Your task to perform on an android device: install app "Google Keep" Image 0: 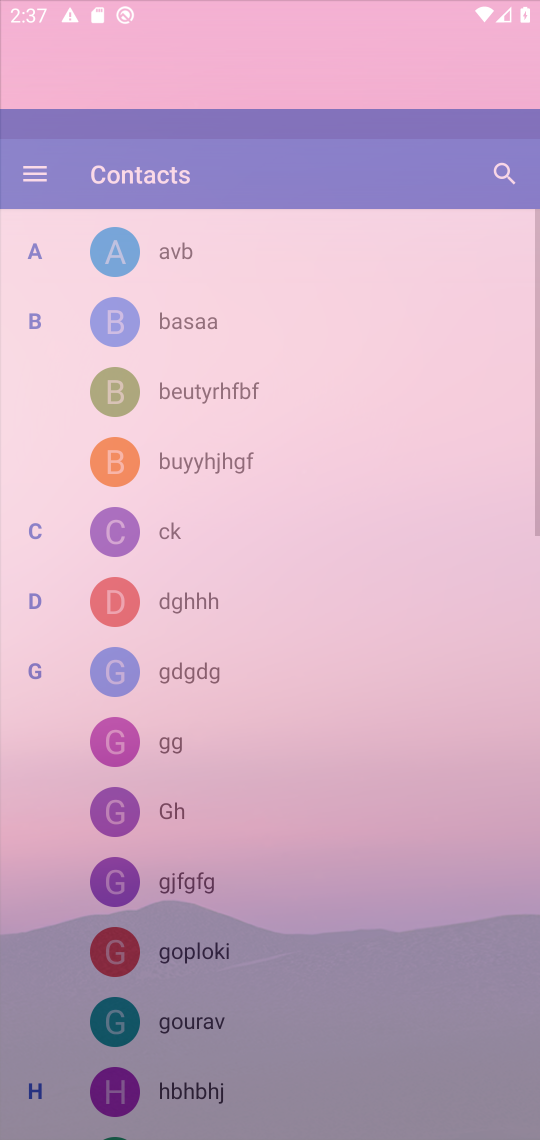
Step 0: press home button
Your task to perform on an android device: install app "Google Keep" Image 1: 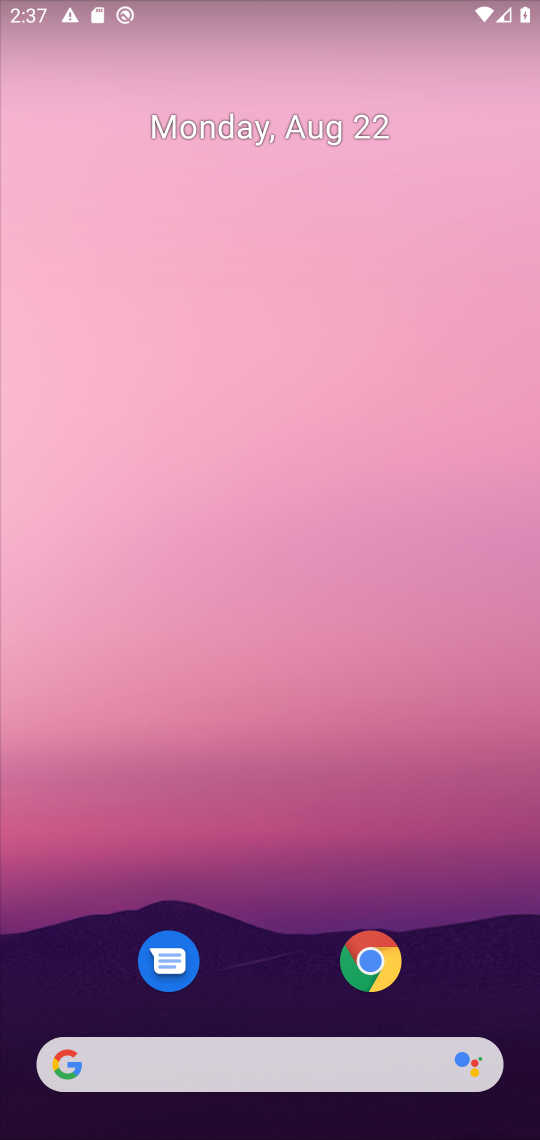
Step 1: drag from (468, 995) to (460, 54)
Your task to perform on an android device: install app "Google Keep" Image 2: 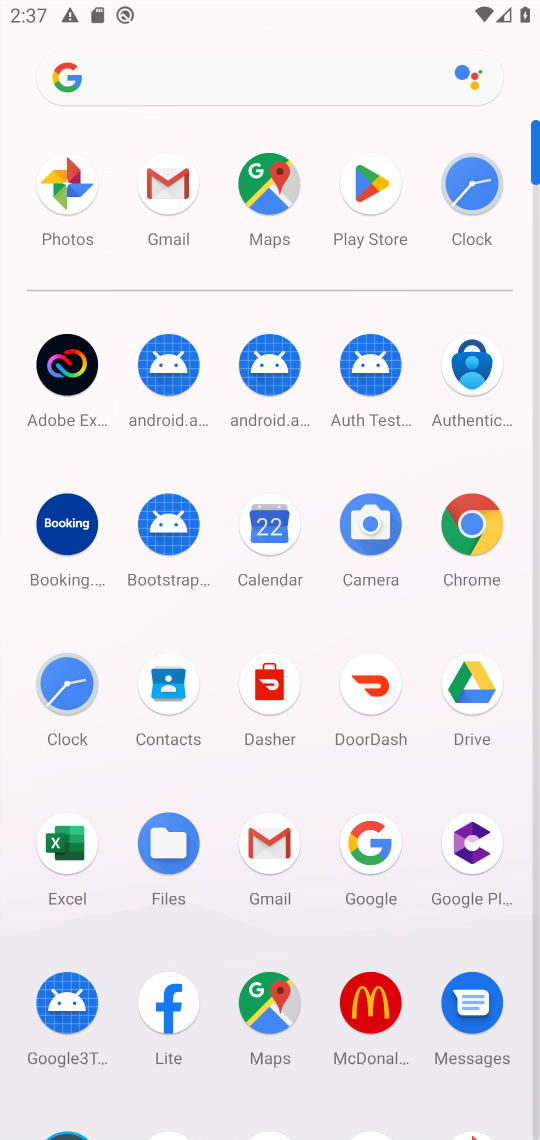
Step 2: click (374, 186)
Your task to perform on an android device: install app "Google Keep" Image 3: 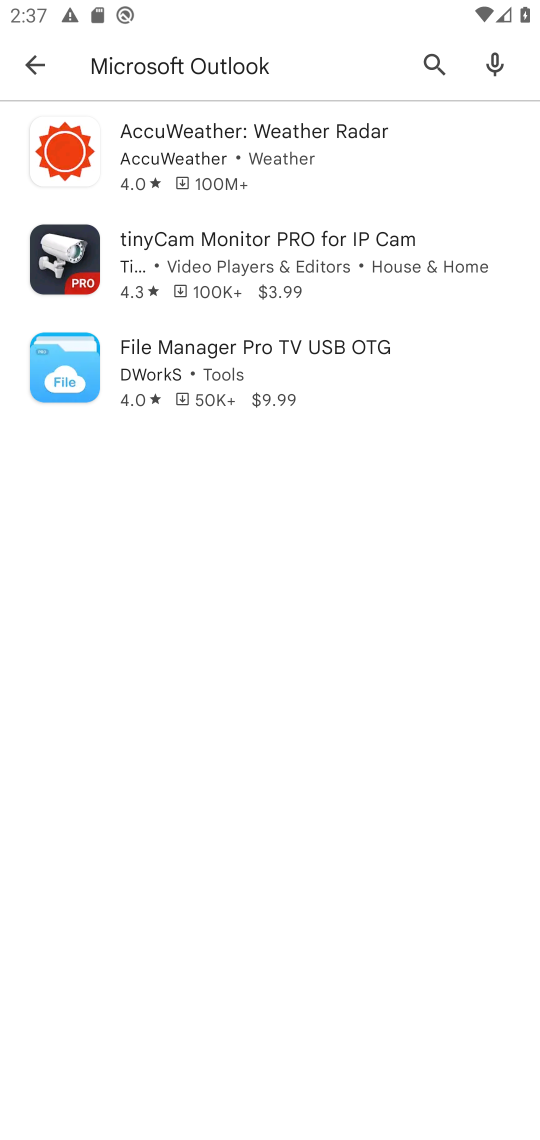
Step 3: press back button
Your task to perform on an android device: install app "Google Keep" Image 4: 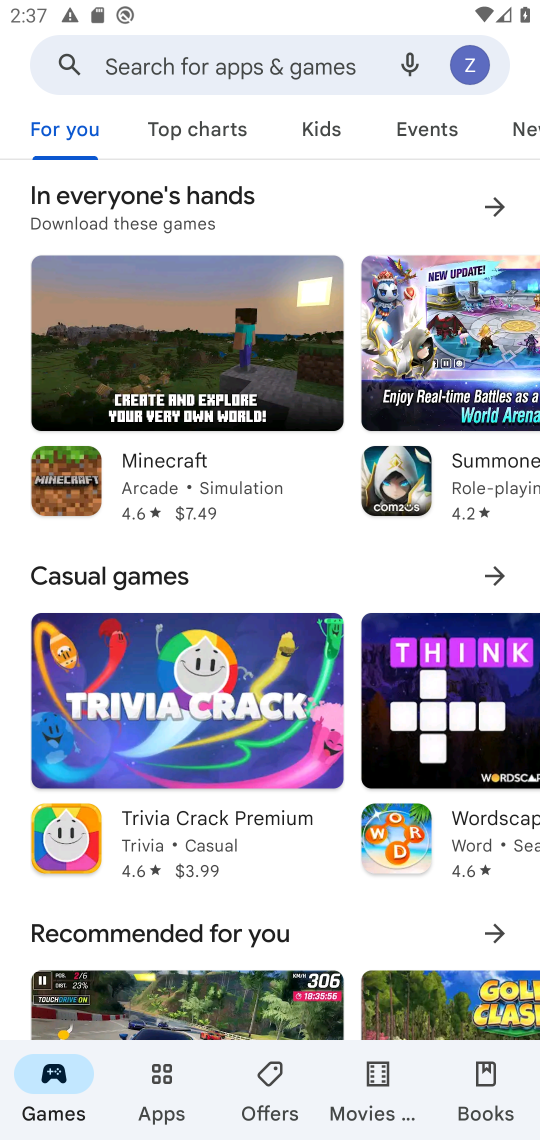
Step 4: click (272, 58)
Your task to perform on an android device: install app "Google Keep" Image 5: 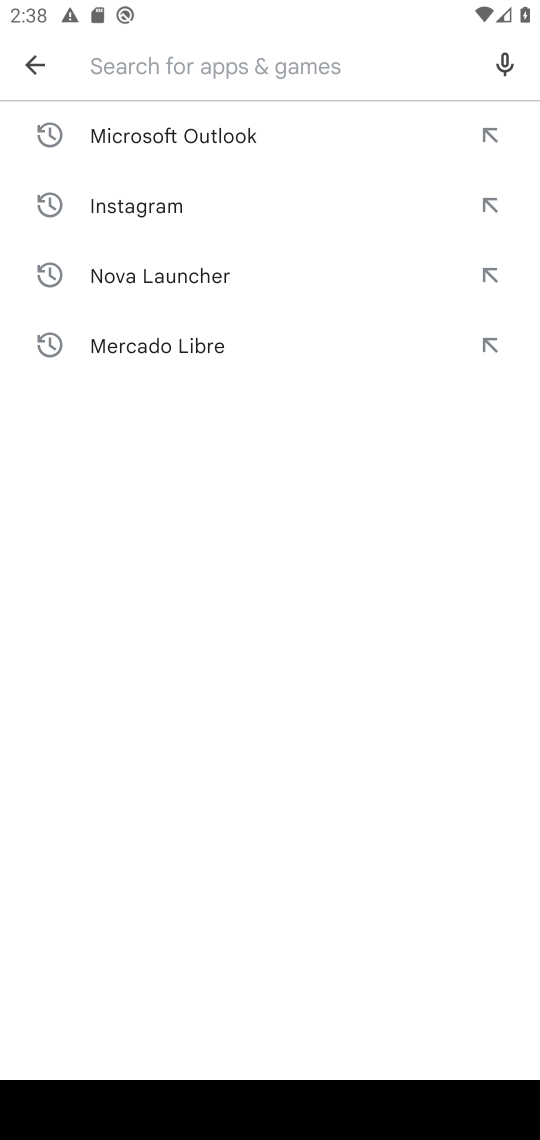
Step 5: type "google keep"
Your task to perform on an android device: install app "Google Keep" Image 6: 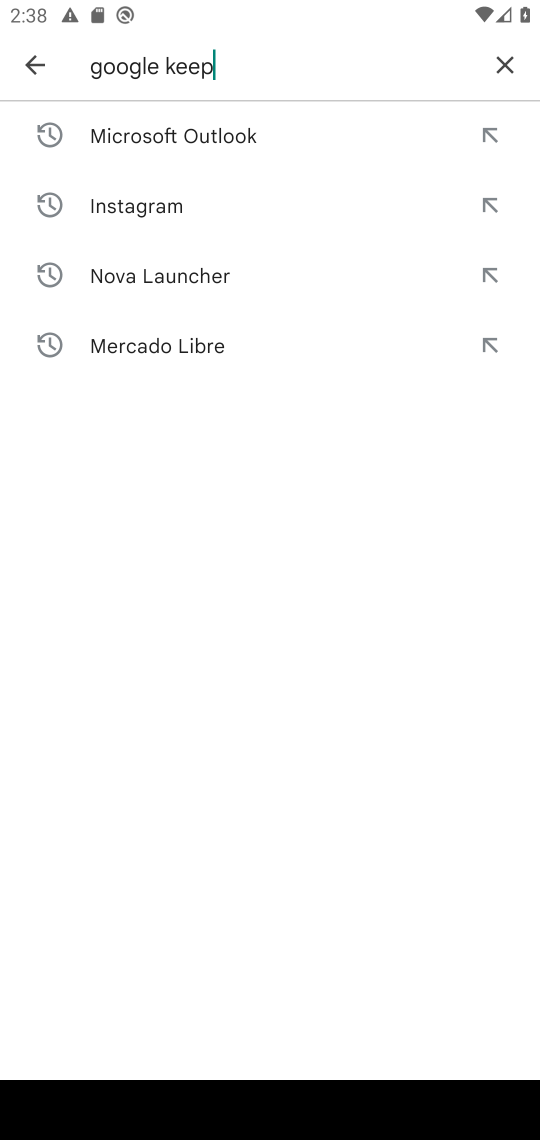
Step 6: press enter
Your task to perform on an android device: install app "Google Keep" Image 7: 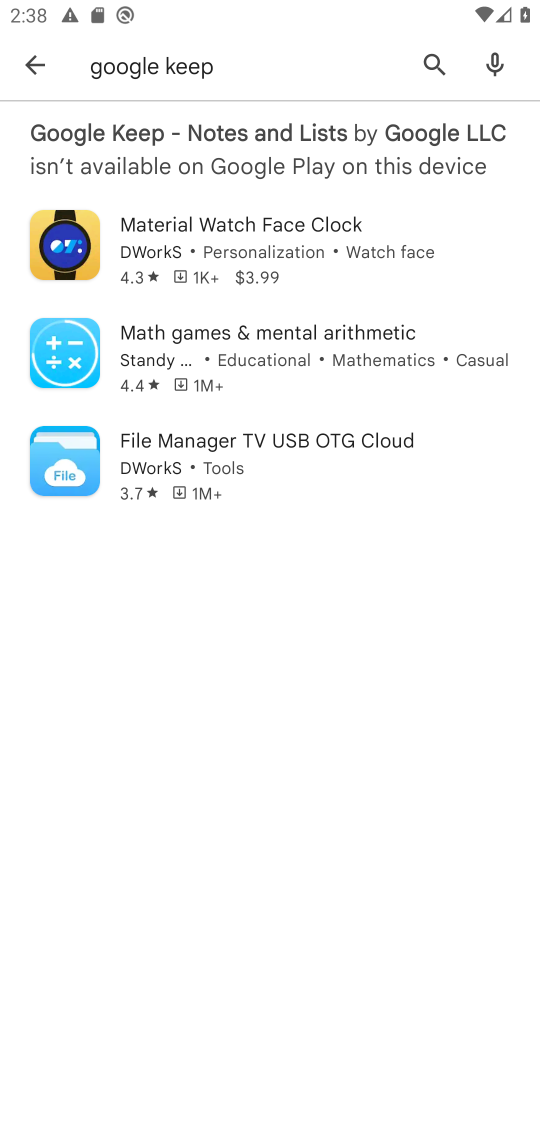
Step 7: task complete